Your task to perform on an android device: turn off airplane mode Image 0: 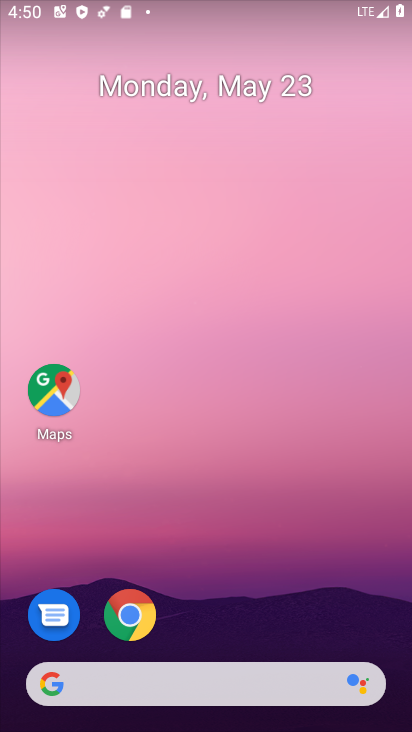
Step 0: drag from (323, 3) to (301, 318)
Your task to perform on an android device: turn off airplane mode Image 1: 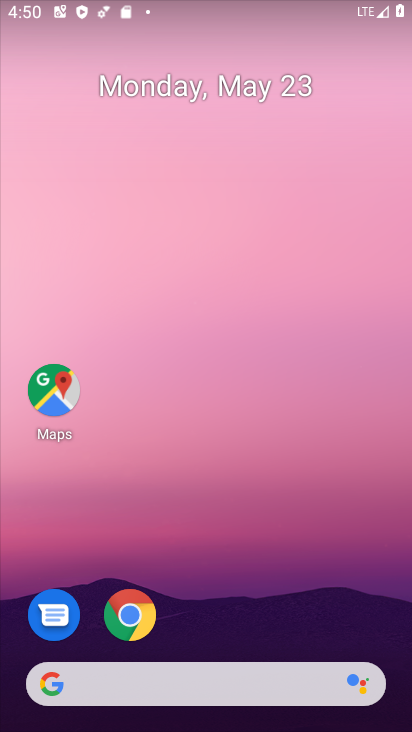
Step 1: task complete